Your task to perform on an android device: toggle translation in the chrome app Image 0: 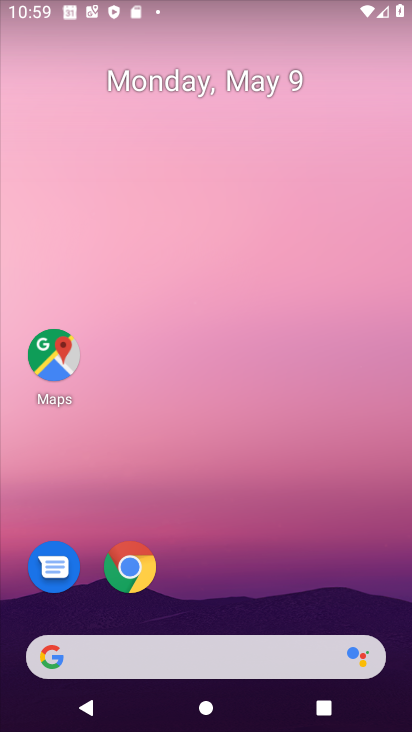
Step 0: click (129, 589)
Your task to perform on an android device: toggle translation in the chrome app Image 1: 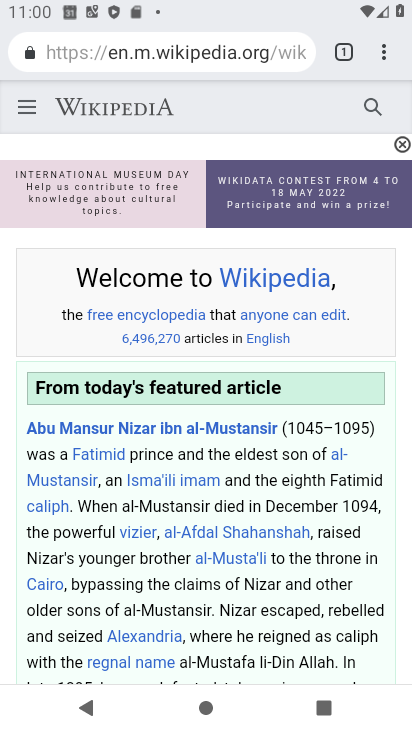
Step 1: click (383, 55)
Your task to perform on an android device: toggle translation in the chrome app Image 2: 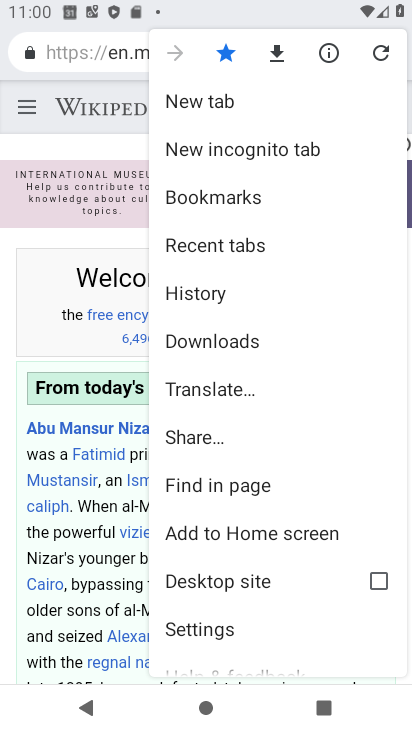
Step 2: click (217, 634)
Your task to perform on an android device: toggle translation in the chrome app Image 3: 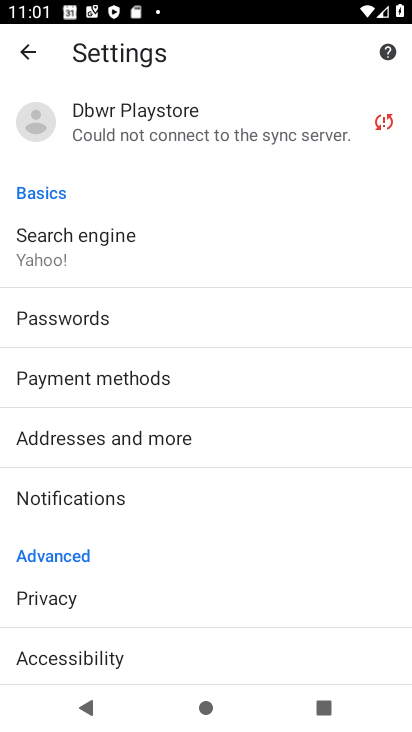
Step 3: drag from (123, 590) to (91, 106)
Your task to perform on an android device: toggle translation in the chrome app Image 4: 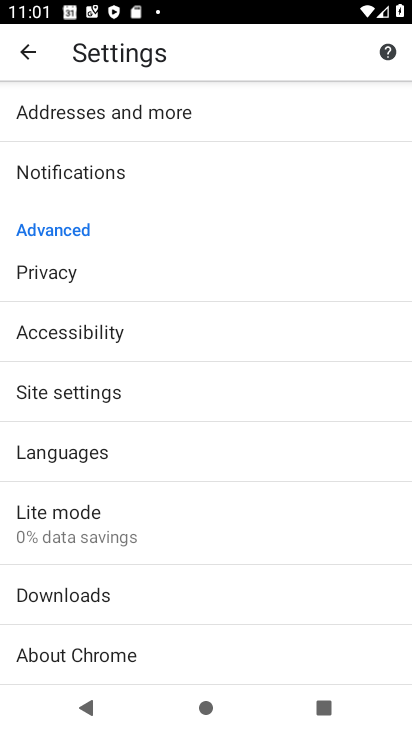
Step 4: click (48, 454)
Your task to perform on an android device: toggle translation in the chrome app Image 5: 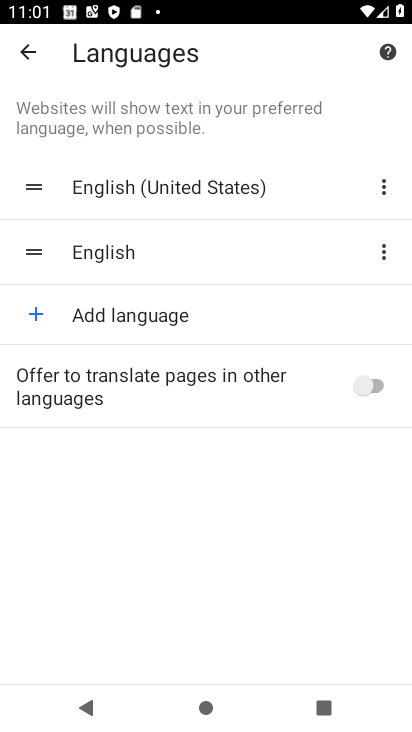
Step 5: click (364, 390)
Your task to perform on an android device: toggle translation in the chrome app Image 6: 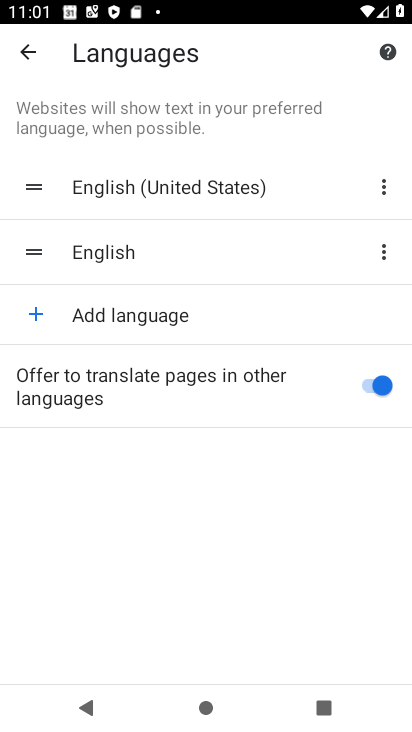
Step 6: task complete